Your task to perform on an android device: open app "Chime – Mobile Banking" Image 0: 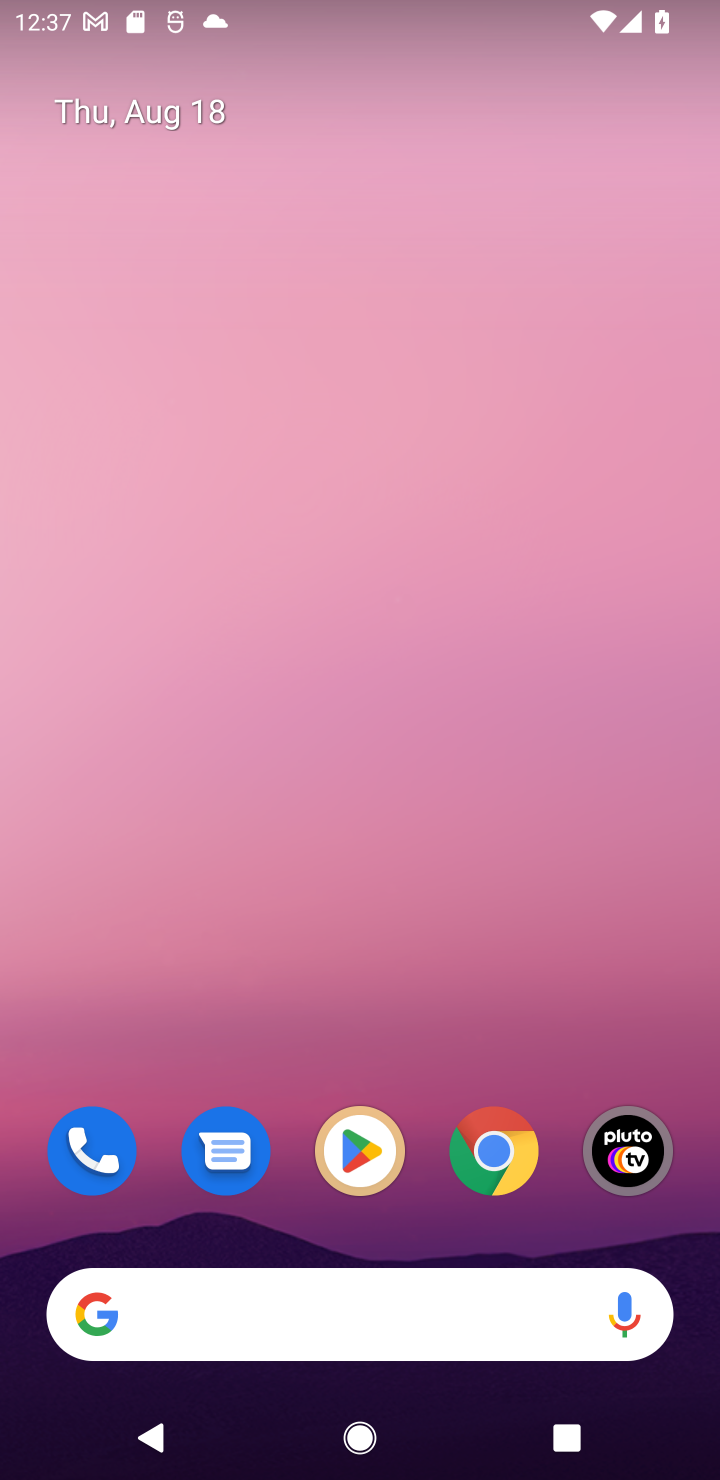
Step 0: click (351, 1152)
Your task to perform on an android device: open app "Chime – Mobile Banking" Image 1: 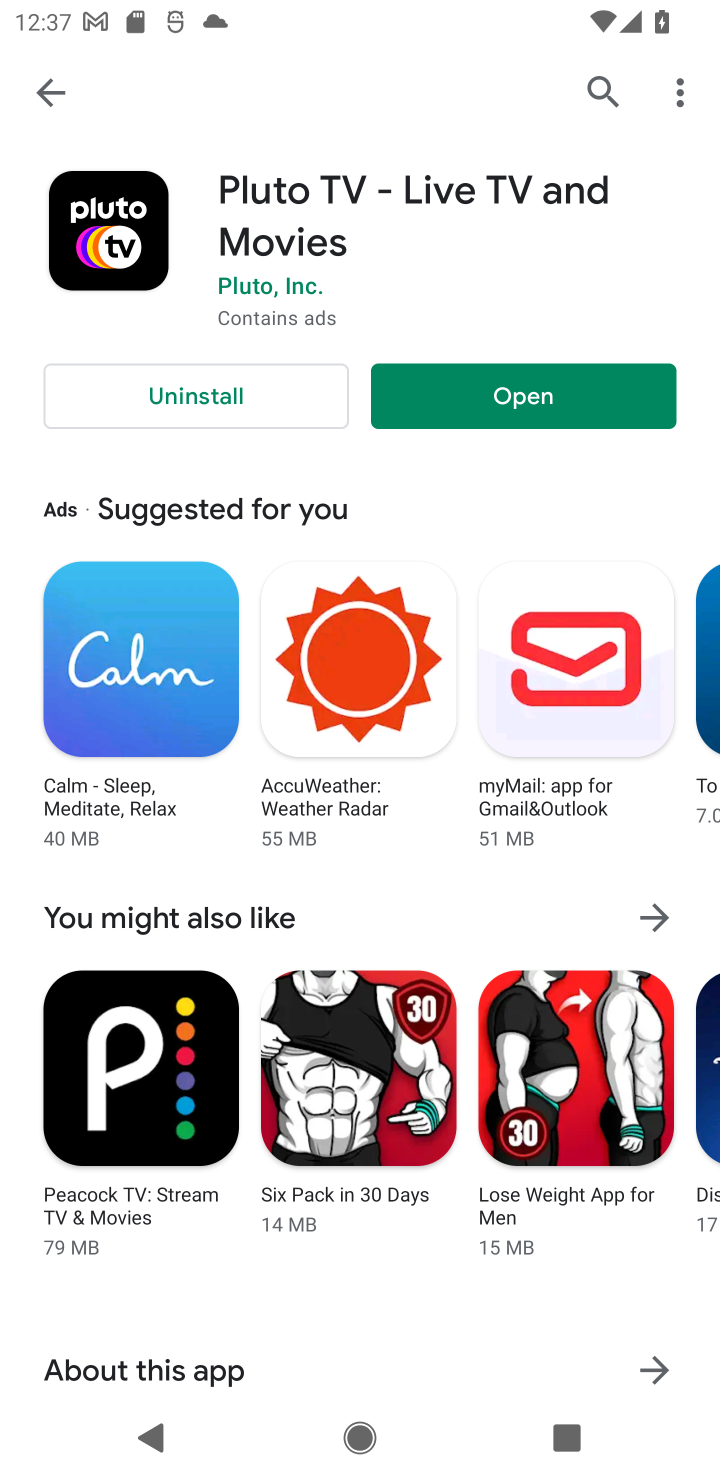
Step 1: click (45, 97)
Your task to perform on an android device: open app "Chime – Mobile Banking" Image 2: 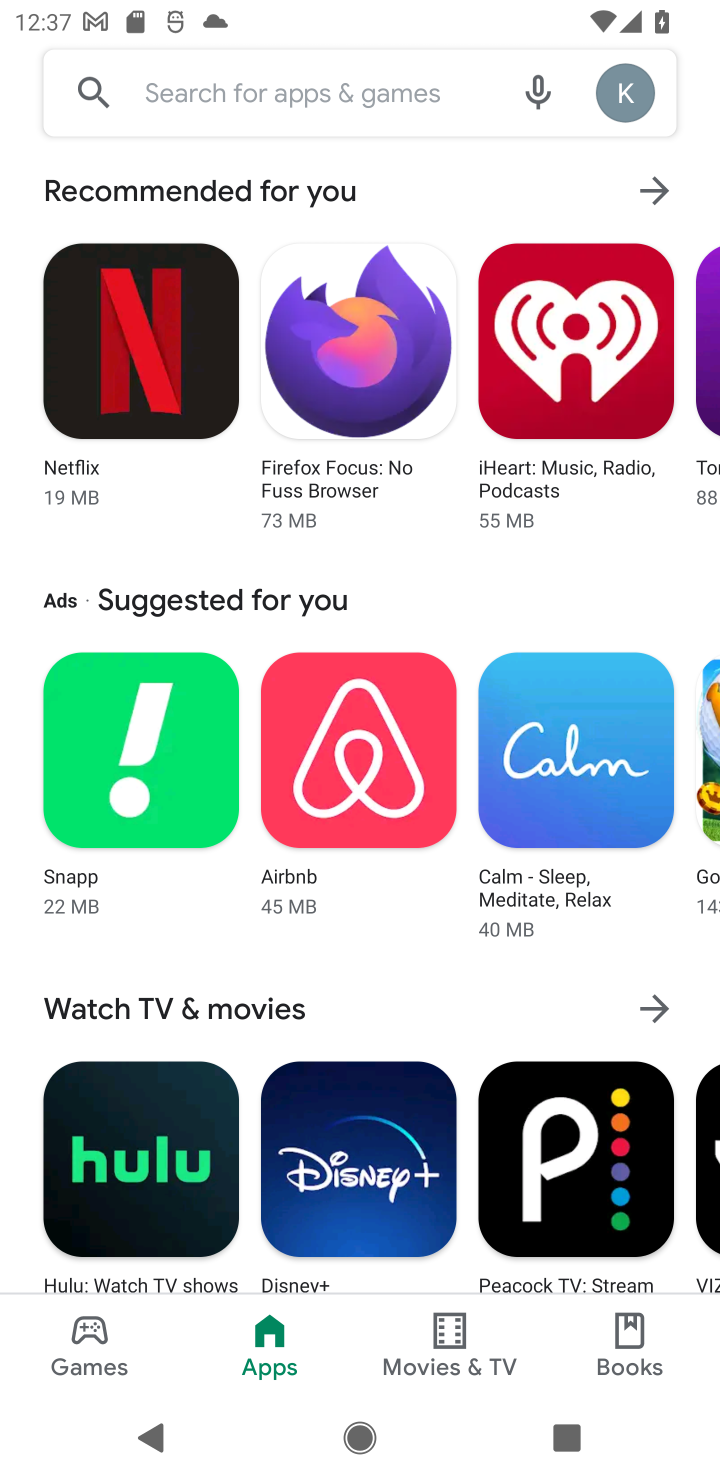
Step 2: click (232, 75)
Your task to perform on an android device: open app "Chime – Mobile Banking" Image 3: 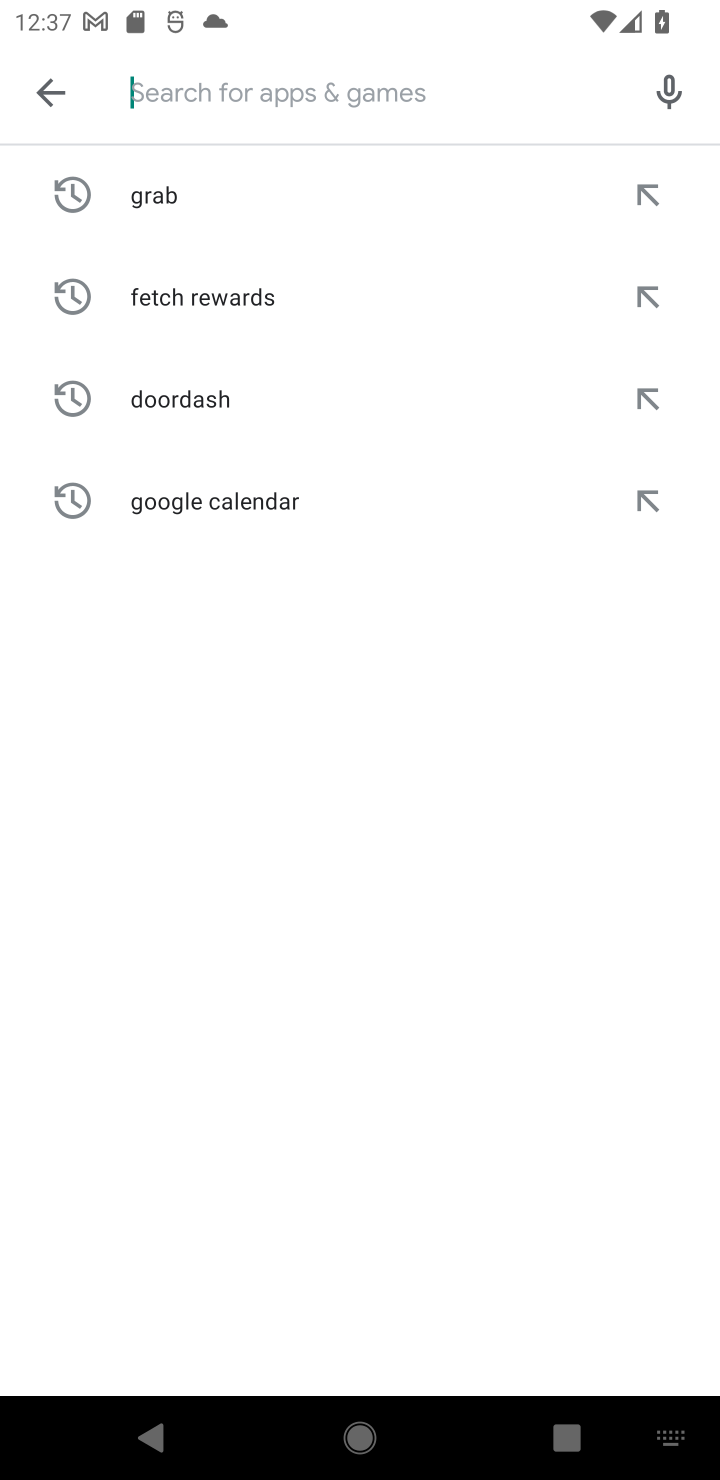
Step 3: type "Chime"
Your task to perform on an android device: open app "Chime – Mobile Banking" Image 4: 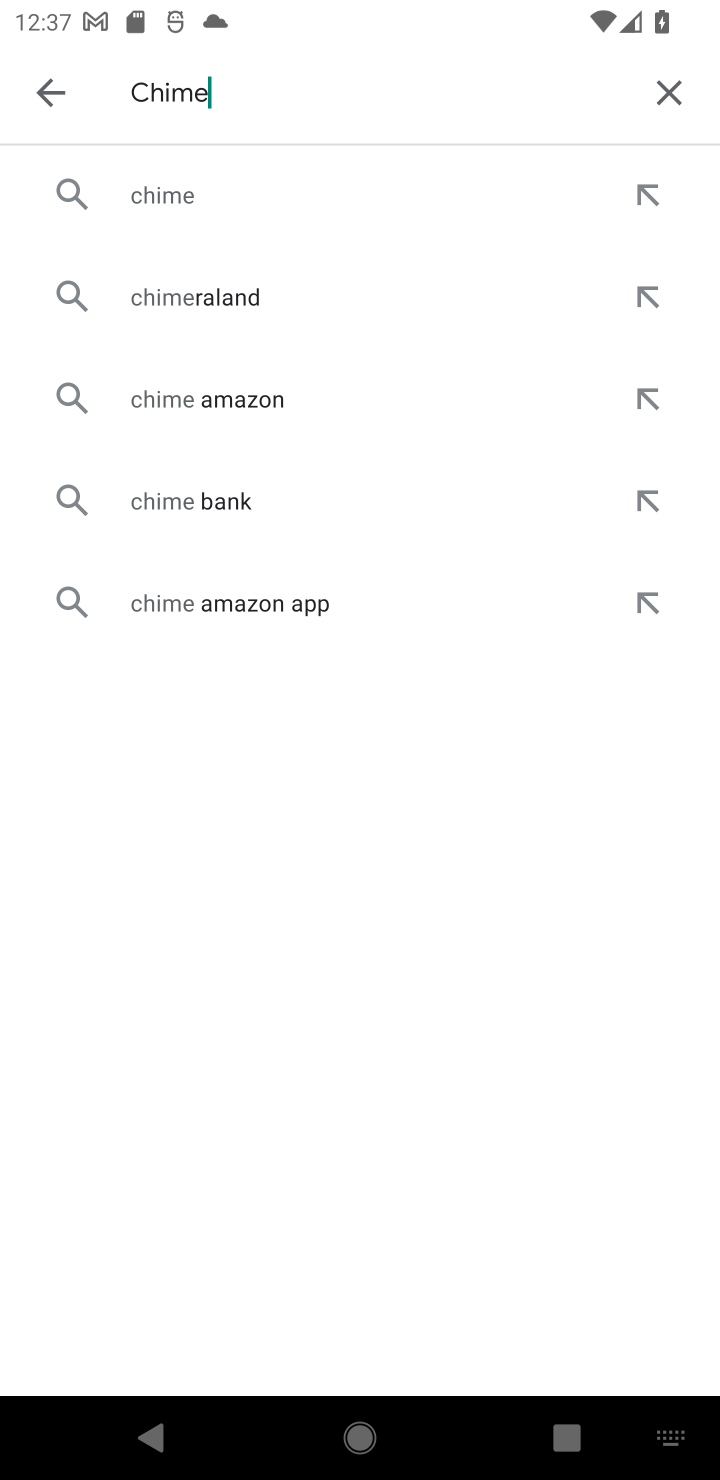
Step 4: click (158, 189)
Your task to perform on an android device: open app "Chime – Mobile Banking" Image 5: 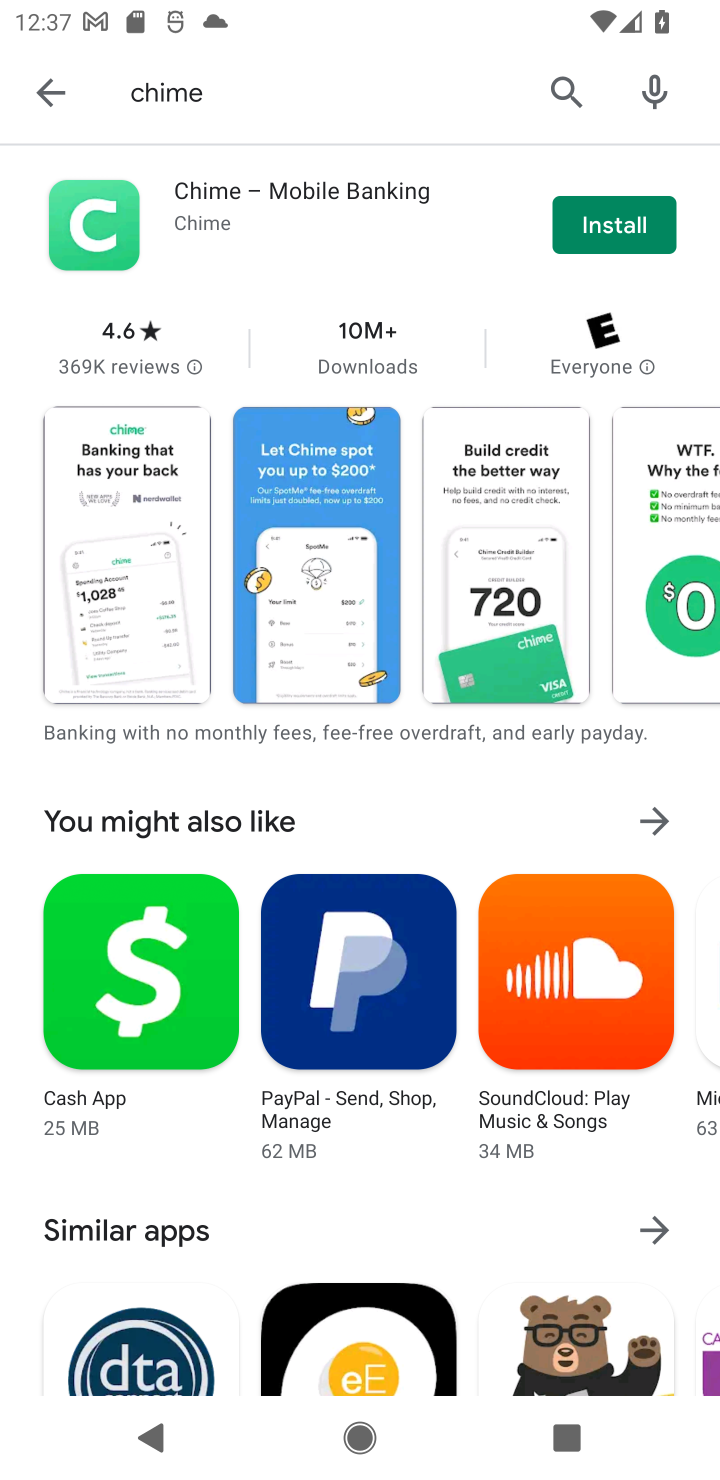
Step 5: click (599, 229)
Your task to perform on an android device: open app "Chime – Mobile Banking" Image 6: 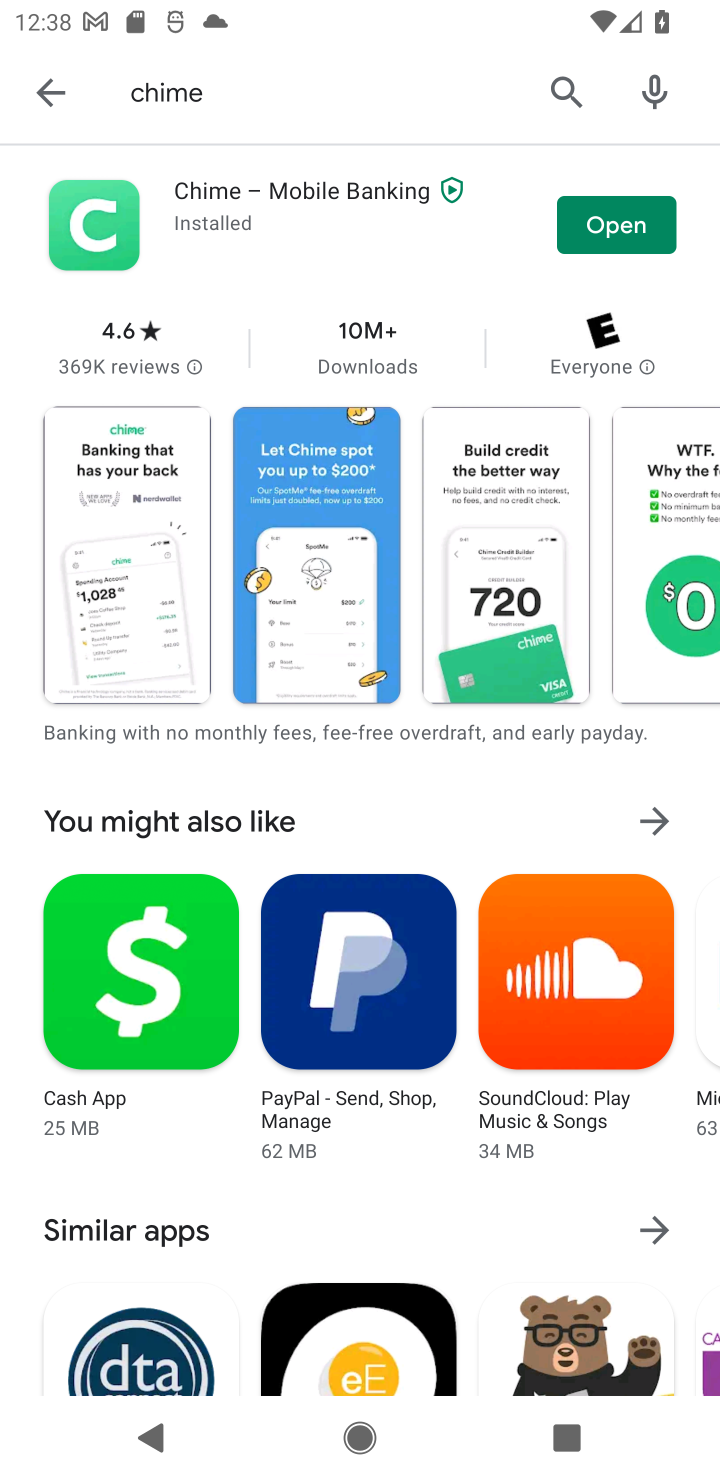
Step 6: click (593, 215)
Your task to perform on an android device: open app "Chime – Mobile Banking" Image 7: 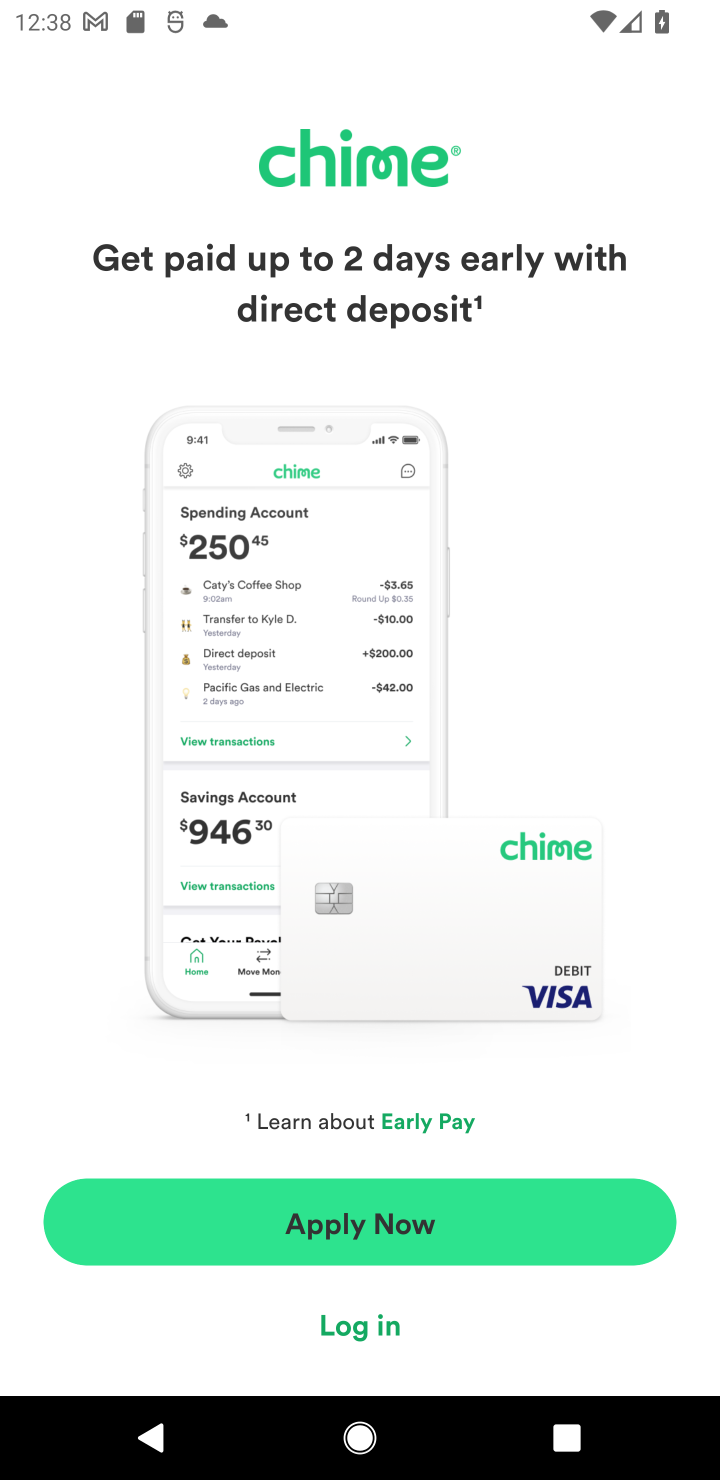
Step 7: task complete